Your task to perform on an android device: View the shopping cart on walmart.com. Add "usb-a to usb-b" to the cart on walmart.com, then select checkout. Image 0: 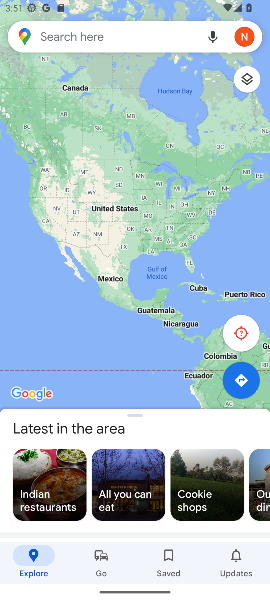
Step 0: press home button
Your task to perform on an android device: View the shopping cart on walmart.com. Add "usb-a to usb-b" to the cart on walmart.com, then select checkout. Image 1: 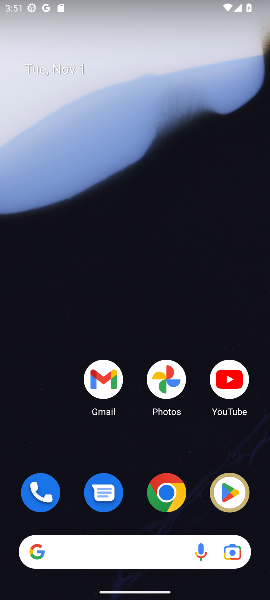
Step 1: click (164, 496)
Your task to perform on an android device: View the shopping cart on walmart.com. Add "usb-a to usb-b" to the cart on walmart.com, then select checkout. Image 2: 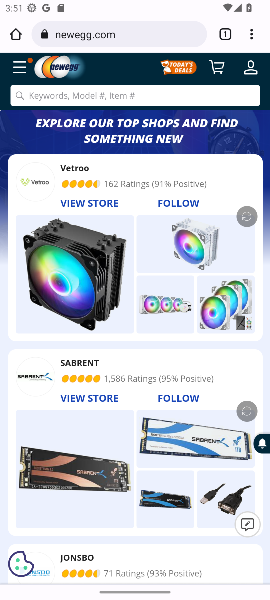
Step 2: click (94, 45)
Your task to perform on an android device: View the shopping cart on walmart.com. Add "usb-a to usb-b" to the cart on walmart.com, then select checkout. Image 3: 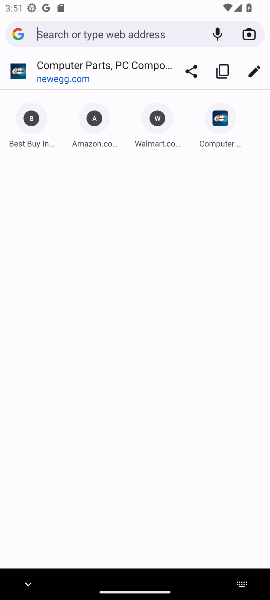
Step 3: type "walmart.com"
Your task to perform on an android device: View the shopping cart on walmart.com. Add "usb-a to usb-b" to the cart on walmart.com, then select checkout. Image 4: 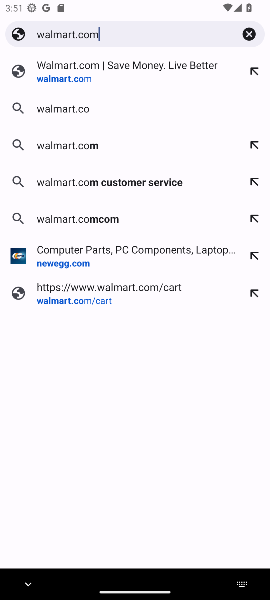
Step 4: type ""
Your task to perform on an android device: View the shopping cart on walmart.com. Add "usb-a to usb-b" to the cart on walmart.com, then select checkout. Image 5: 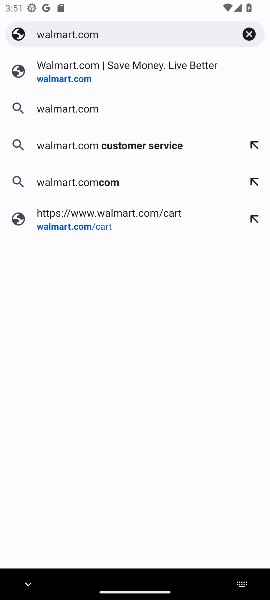
Step 5: press enter
Your task to perform on an android device: View the shopping cart on walmart.com. Add "usb-a to usb-b" to the cart on walmart.com, then select checkout. Image 6: 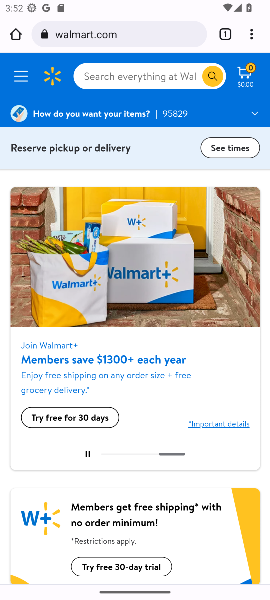
Step 6: drag from (138, 458) to (149, 207)
Your task to perform on an android device: View the shopping cart on walmart.com. Add "usb-a to usb-b" to the cart on walmart.com, then select checkout. Image 7: 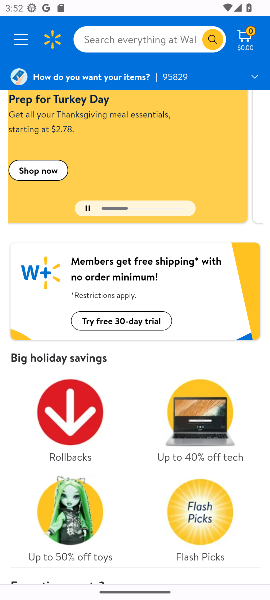
Step 7: click (124, 35)
Your task to perform on an android device: View the shopping cart on walmart.com. Add "usb-a to usb-b" to the cart on walmart.com, then select checkout. Image 8: 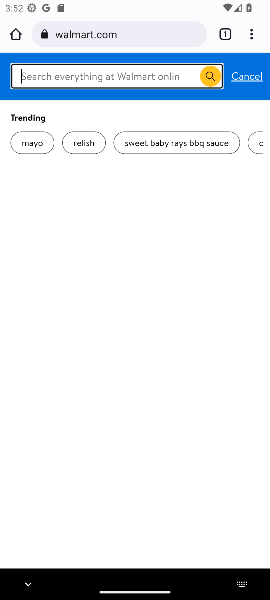
Step 8: type "usb-a to usb-b"
Your task to perform on an android device: View the shopping cart on walmart.com. Add "usb-a to usb-b" to the cart on walmart.com, then select checkout. Image 9: 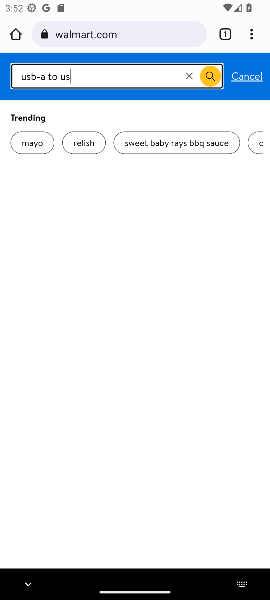
Step 9: type ""
Your task to perform on an android device: View the shopping cart on walmart.com. Add "usb-a to usb-b" to the cart on walmart.com, then select checkout. Image 10: 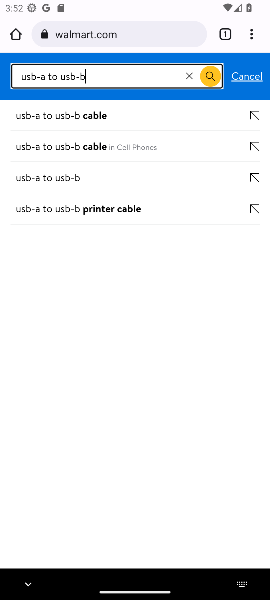
Step 10: click (94, 118)
Your task to perform on an android device: View the shopping cart on walmart.com. Add "usb-a to usb-b" to the cart on walmart.com, then select checkout. Image 11: 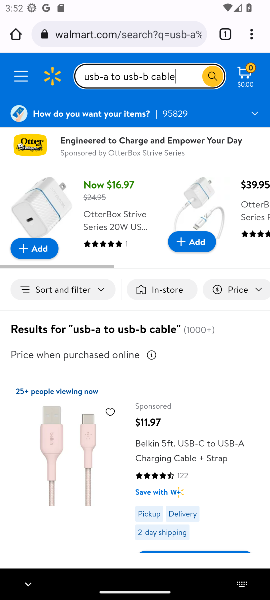
Step 11: drag from (220, 496) to (217, 193)
Your task to perform on an android device: View the shopping cart on walmart.com. Add "usb-a to usb-b" to the cart on walmart.com, then select checkout. Image 12: 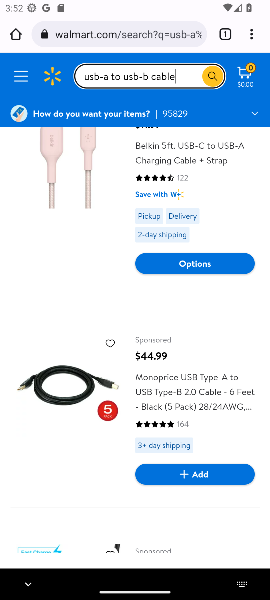
Step 12: click (190, 359)
Your task to perform on an android device: View the shopping cart on walmart.com. Add "usb-a to usb-b" to the cart on walmart.com, then select checkout. Image 13: 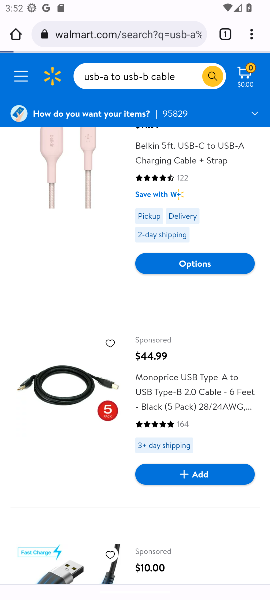
Step 13: click (195, 471)
Your task to perform on an android device: View the shopping cart on walmart.com. Add "usb-a to usb-b" to the cart on walmart.com, then select checkout. Image 14: 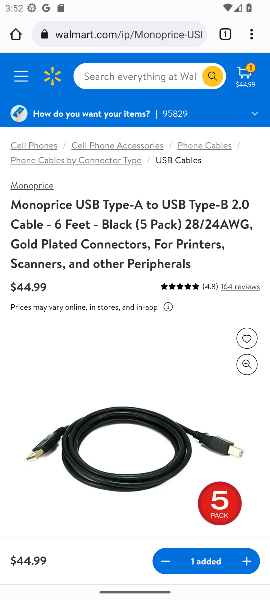
Step 14: click (253, 74)
Your task to perform on an android device: View the shopping cart on walmart.com. Add "usb-a to usb-b" to the cart on walmart.com, then select checkout. Image 15: 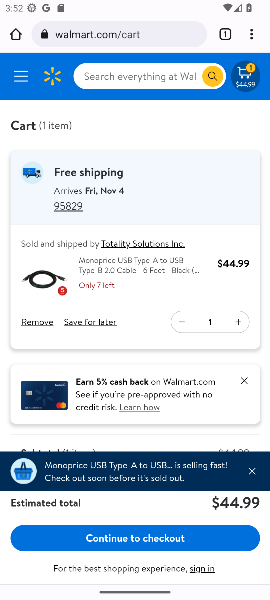
Step 15: click (127, 539)
Your task to perform on an android device: View the shopping cart on walmart.com. Add "usb-a to usb-b" to the cart on walmart.com, then select checkout. Image 16: 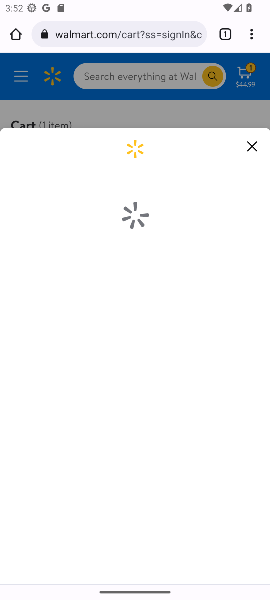
Step 16: click (195, 254)
Your task to perform on an android device: View the shopping cart on walmart.com. Add "usb-a to usb-b" to the cart on walmart.com, then select checkout. Image 17: 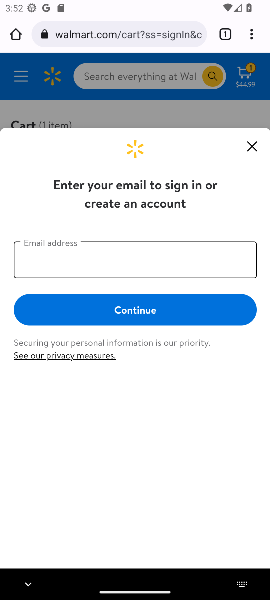
Step 17: click (247, 137)
Your task to perform on an android device: View the shopping cart on walmart.com. Add "usb-a to usb-b" to the cart on walmart.com, then select checkout. Image 18: 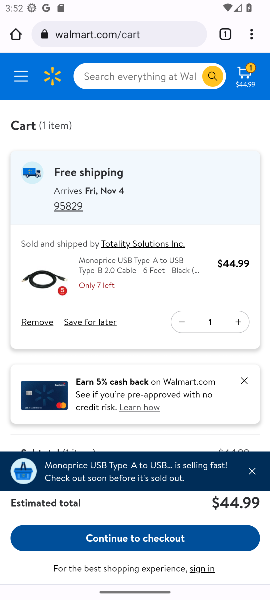
Step 18: drag from (152, 390) to (163, 211)
Your task to perform on an android device: View the shopping cart on walmart.com. Add "usb-a to usb-b" to the cart on walmart.com, then select checkout. Image 19: 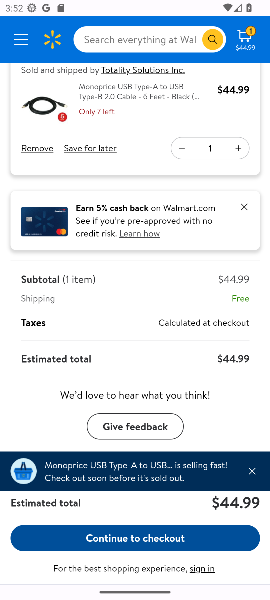
Step 19: click (251, 437)
Your task to perform on an android device: View the shopping cart on walmart.com. Add "usb-a to usb-b" to the cart on walmart.com, then select checkout. Image 20: 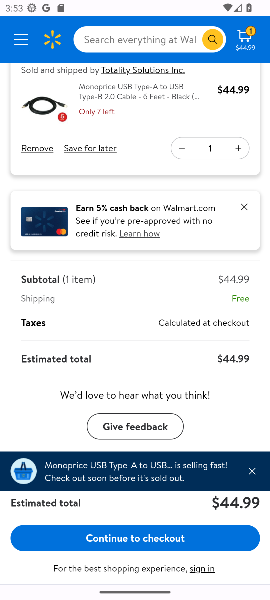
Step 20: click (253, 471)
Your task to perform on an android device: View the shopping cart on walmart.com. Add "usb-a to usb-b" to the cart on walmart.com, then select checkout. Image 21: 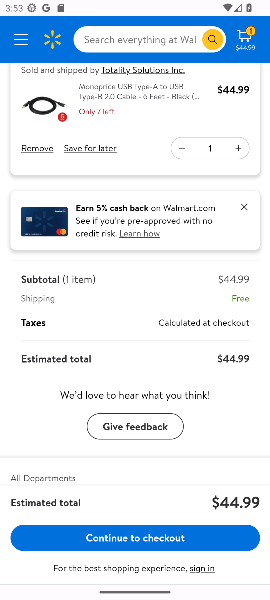
Step 21: drag from (235, 491) to (200, 386)
Your task to perform on an android device: View the shopping cart on walmart.com. Add "usb-a to usb-b" to the cart on walmart.com, then select checkout. Image 22: 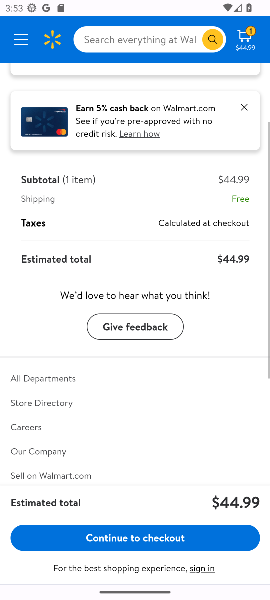
Step 22: drag from (209, 183) to (211, 358)
Your task to perform on an android device: View the shopping cart on walmart.com. Add "usb-a to usb-b" to the cart on walmart.com, then select checkout. Image 23: 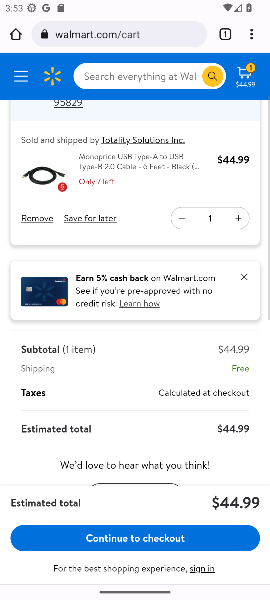
Step 23: drag from (221, 233) to (228, 403)
Your task to perform on an android device: View the shopping cart on walmart.com. Add "usb-a to usb-b" to the cart on walmart.com, then select checkout. Image 24: 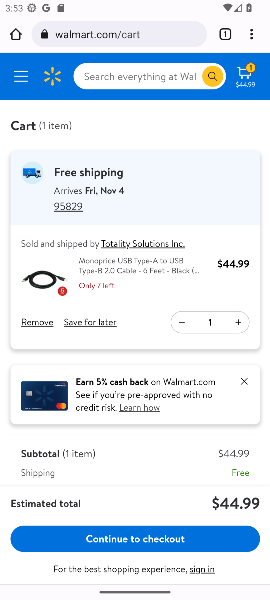
Step 24: click (236, 326)
Your task to perform on an android device: View the shopping cart on walmart.com. Add "usb-a to usb-b" to the cart on walmart.com, then select checkout. Image 25: 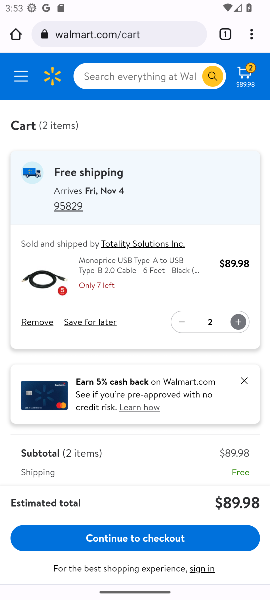
Step 25: click (236, 326)
Your task to perform on an android device: View the shopping cart on walmart.com. Add "usb-a to usb-b" to the cart on walmart.com, then select checkout. Image 26: 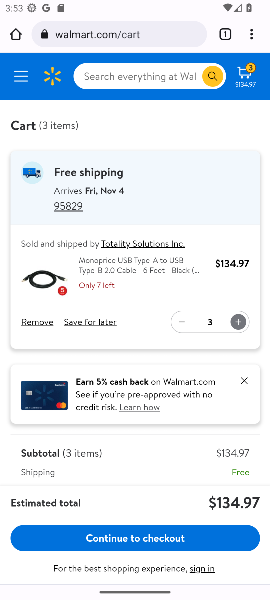
Step 26: drag from (206, 411) to (190, 208)
Your task to perform on an android device: View the shopping cart on walmart.com. Add "usb-a to usb-b" to the cart on walmart.com, then select checkout. Image 27: 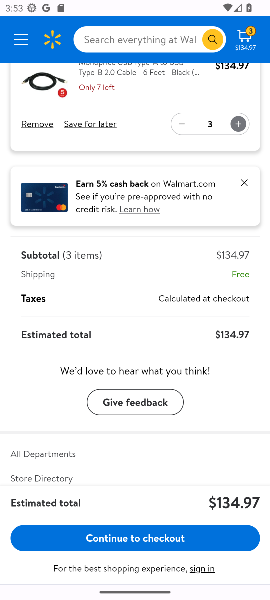
Step 27: click (143, 546)
Your task to perform on an android device: View the shopping cart on walmart.com. Add "usb-a to usb-b" to the cart on walmart.com, then select checkout. Image 28: 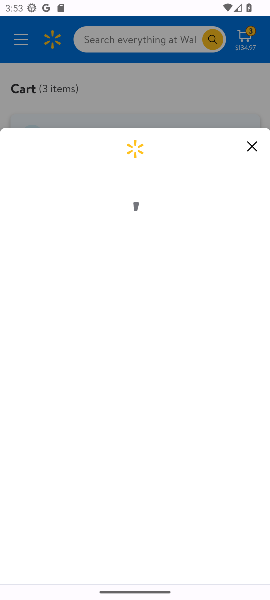
Step 28: click (247, 148)
Your task to perform on an android device: View the shopping cart on walmart.com. Add "usb-a to usb-b" to the cart on walmart.com, then select checkout. Image 29: 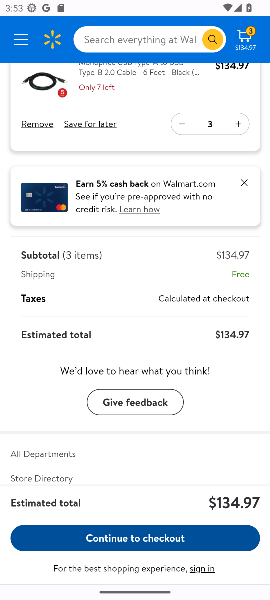
Step 29: task complete